Your task to perform on an android device: Go to Android settings Image 0: 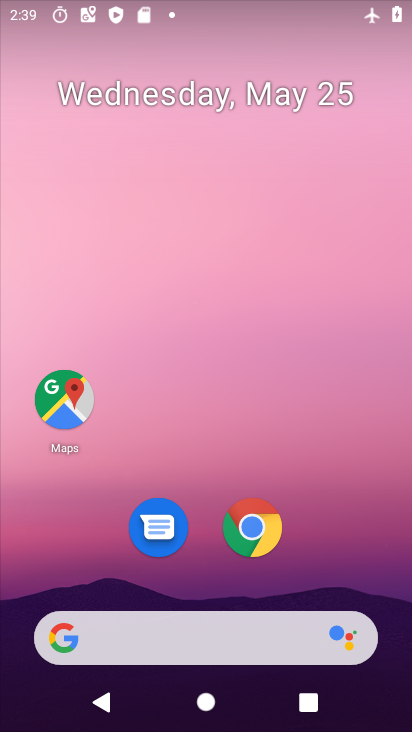
Step 0: click (272, 320)
Your task to perform on an android device: Go to Android settings Image 1: 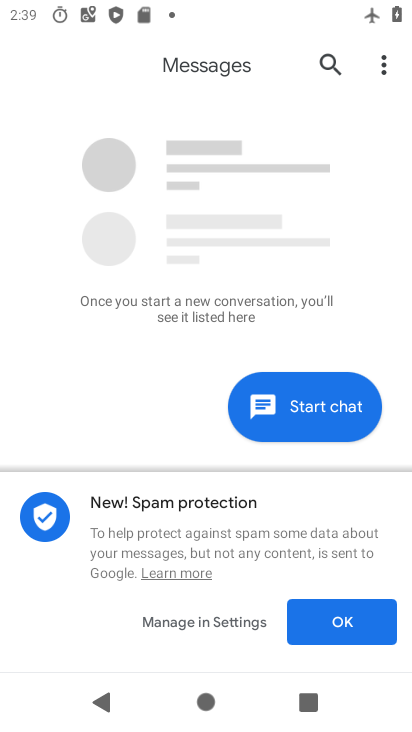
Step 1: press home button
Your task to perform on an android device: Go to Android settings Image 2: 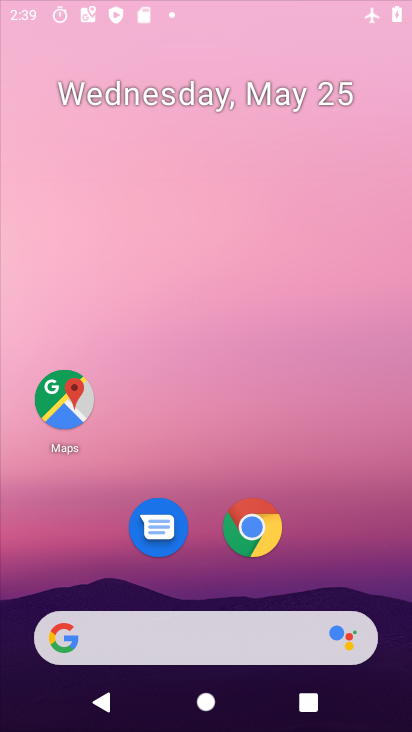
Step 2: drag from (176, 587) to (300, 92)
Your task to perform on an android device: Go to Android settings Image 3: 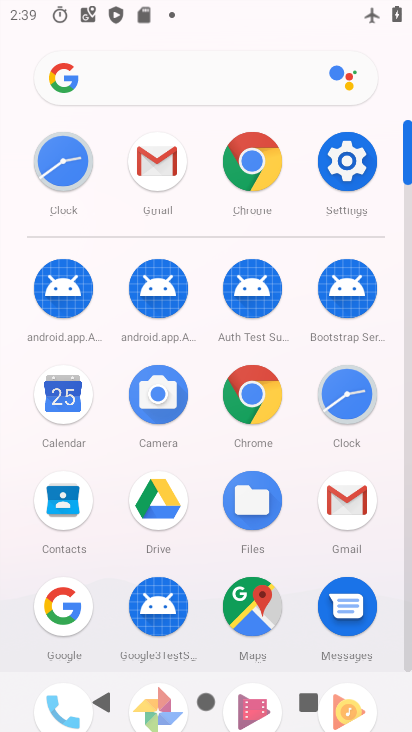
Step 3: click (340, 169)
Your task to perform on an android device: Go to Android settings Image 4: 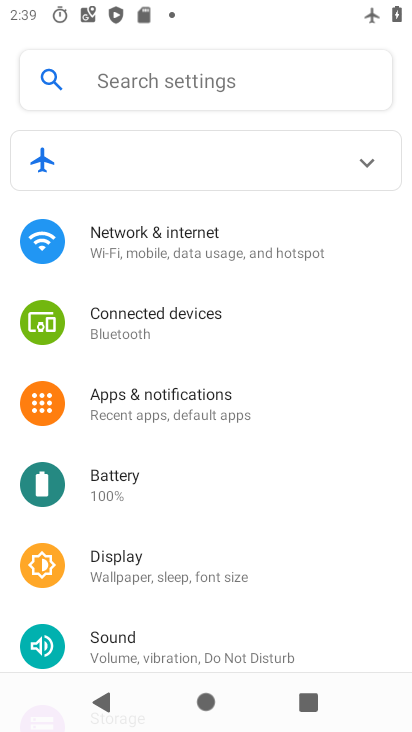
Step 4: drag from (209, 501) to (247, 267)
Your task to perform on an android device: Go to Android settings Image 5: 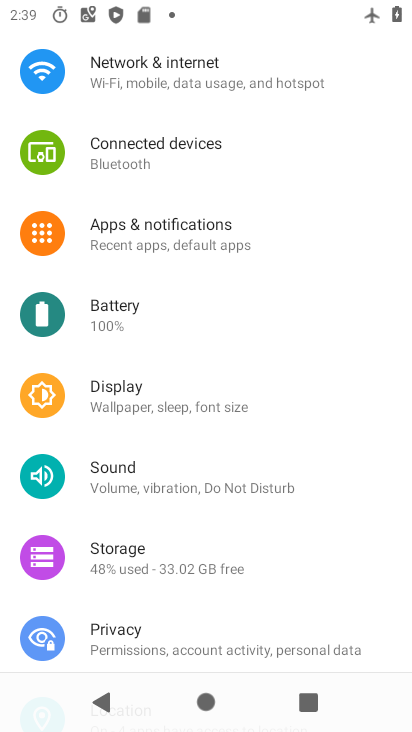
Step 5: drag from (203, 565) to (341, 234)
Your task to perform on an android device: Go to Android settings Image 6: 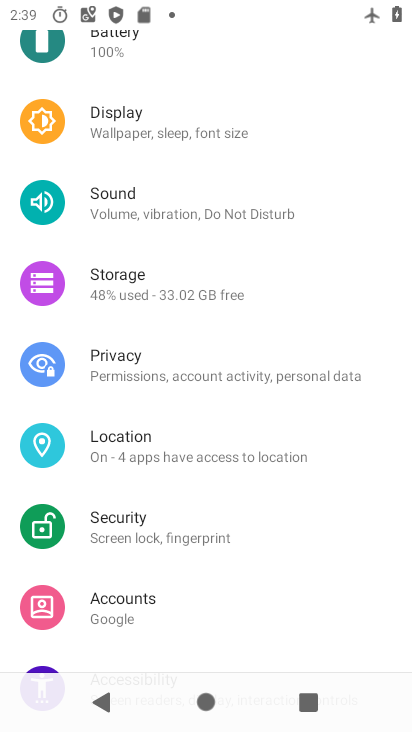
Step 6: drag from (183, 623) to (291, 253)
Your task to perform on an android device: Go to Android settings Image 7: 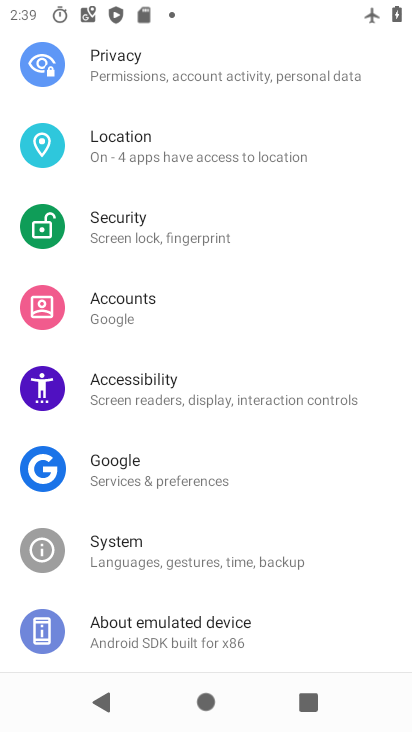
Step 7: click (165, 637)
Your task to perform on an android device: Go to Android settings Image 8: 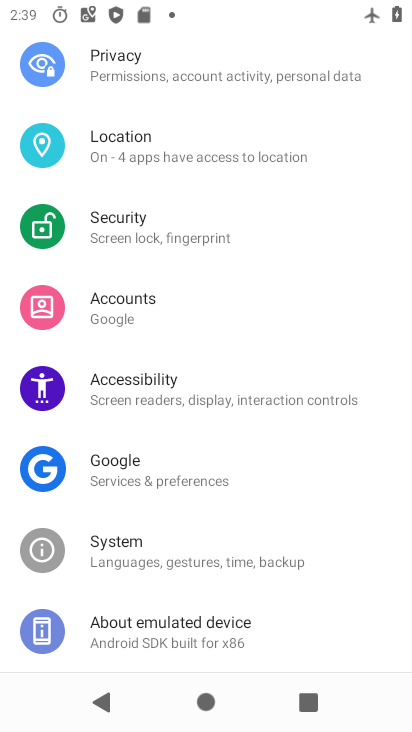
Step 8: click (165, 637)
Your task to perform on an android device: Go to Android settings Image 9: 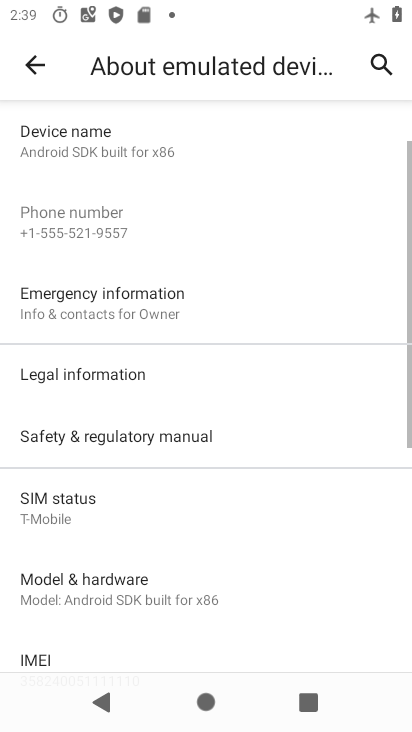
Step 9: drag from (211, 596) to (403, 128)
Your task to perform on an android device: Go to Android settings Image 10: 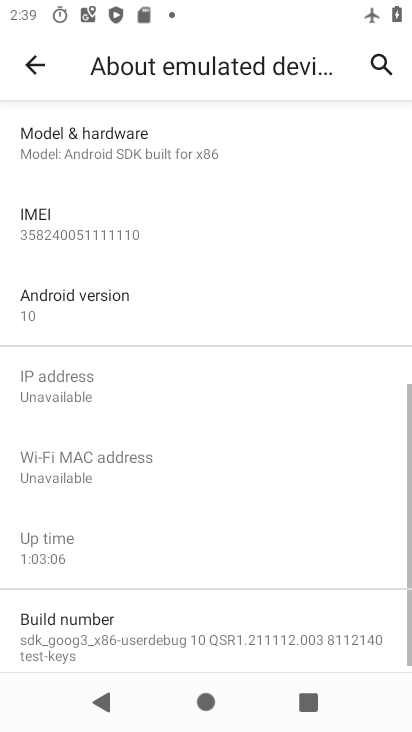
Step 10: click (180, 305)
Your task to perform on an android device: Go to Android settings Image 11: 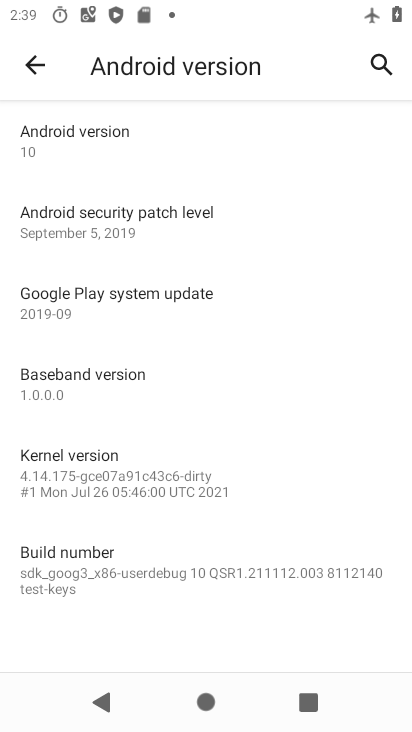
Step 11: click (189, 141)
Your task to perform on an android device: Go to Android settings Image 12: 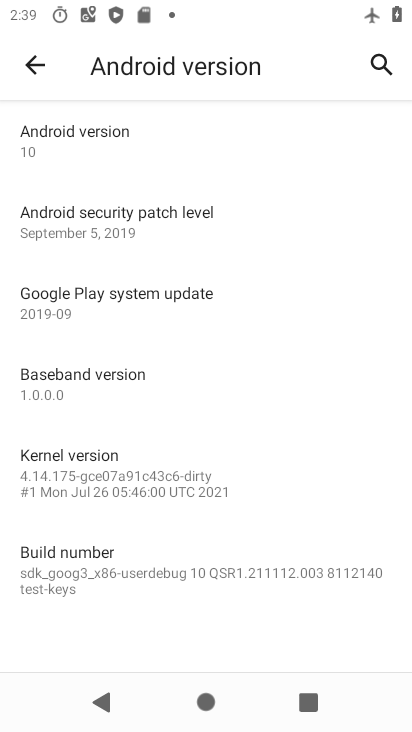
Step 12: task complete